Your task to perform on an android device: Go to Maps Image 0: 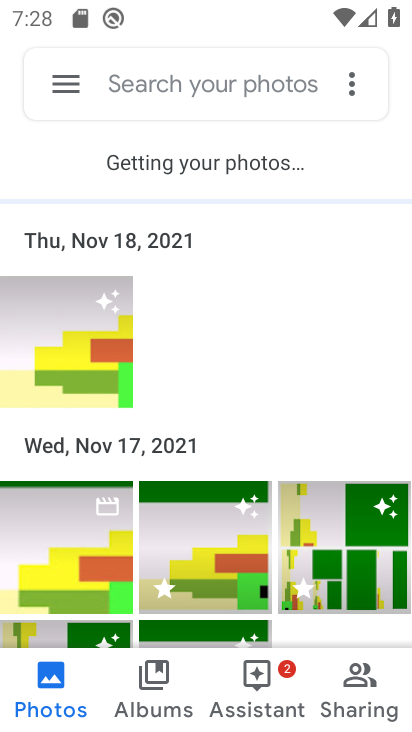
Step 0: press home button
Your task to perform on an android device: Go to Maps Image 1: 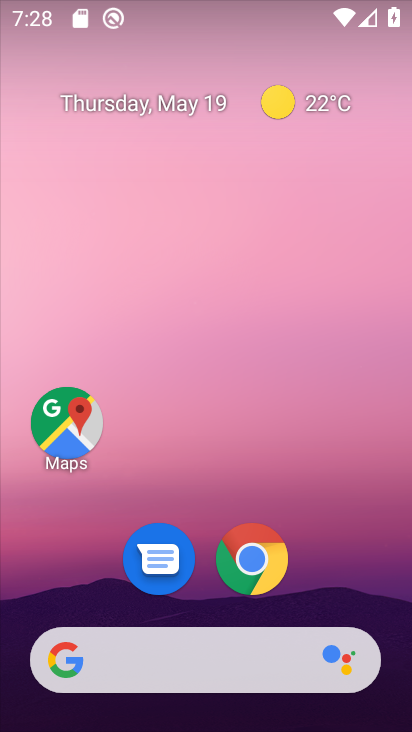
Step 1: drag from (239, 604) to (352, 31)
Your task to perform on an android device: Go to Maps Image 2: 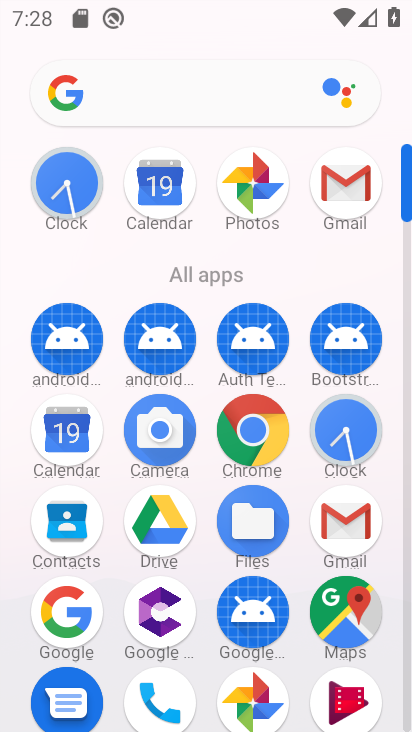
Step 2: click (361, 612)
Your task to perform on an android device: Go to Maps Image 3: 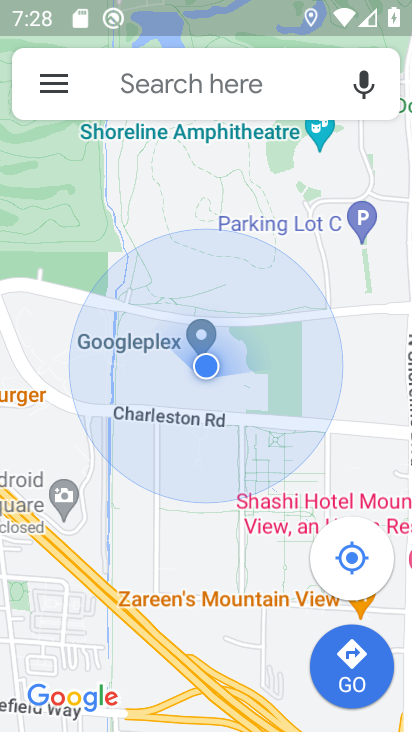
Step 3: task complete